Your task to perform on an android device: Open Google Chrome and click the shortcut for Amazon.com Image 0: 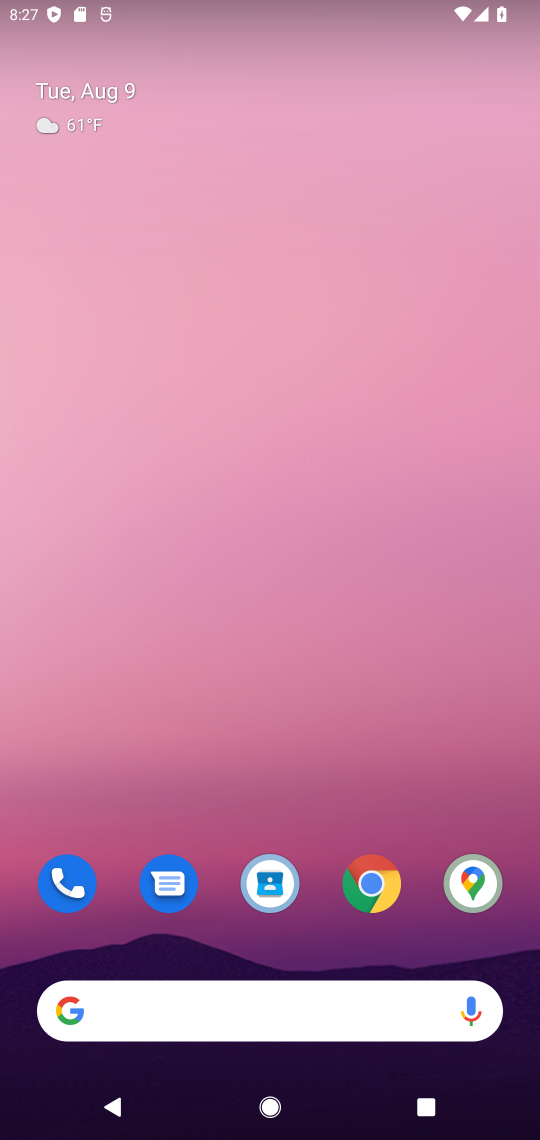
Step 0: click (272, 117)
Your task to perform on an android device: Open Google Chrome and click the shortcut for Amazon.com Image 1: 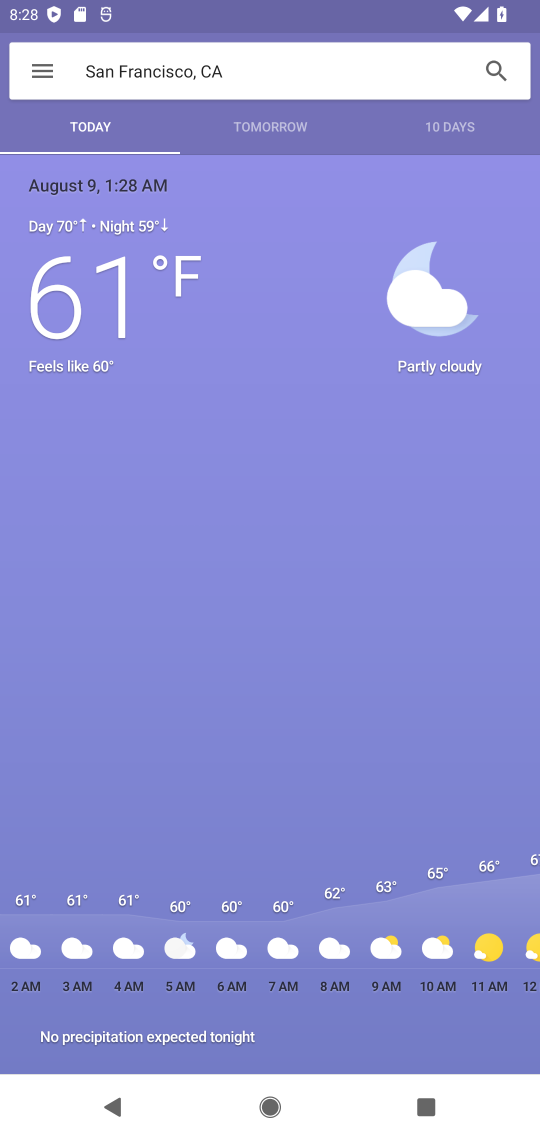
Step 1: press home button
Your task to perform on an android device: Open Google Chrome and click the shortcut for Amazon.com Image 2: 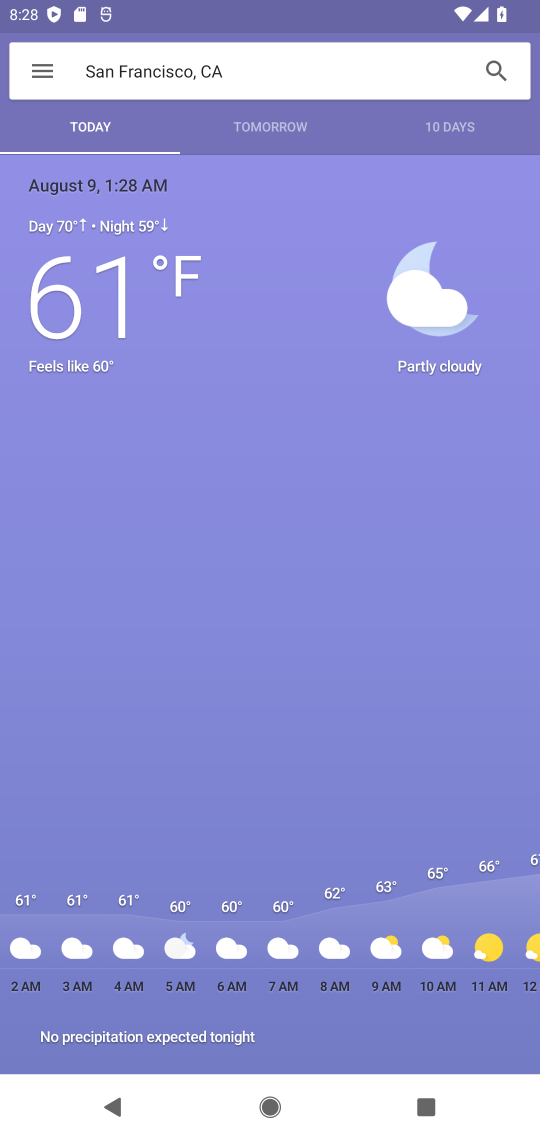
Step 2: press home button
Your task to perform on an android device: Open Google Chrome and click the shortcut for Amazon.com Image 3: 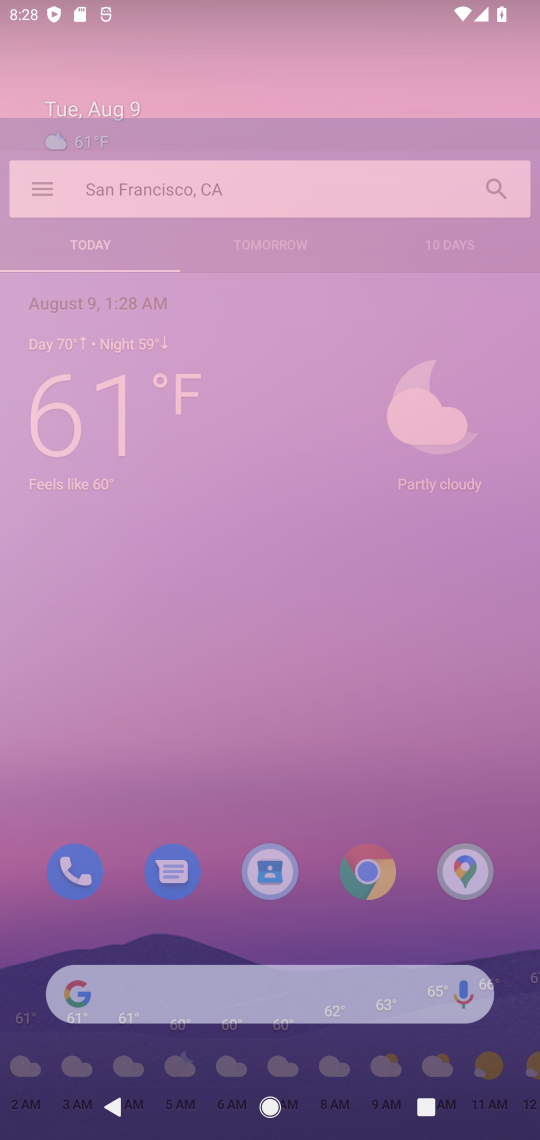
Step 3: press home button
Your task to perform on an android device: Open Google Chrome and click the shortcut for Amazon.com Image 4: 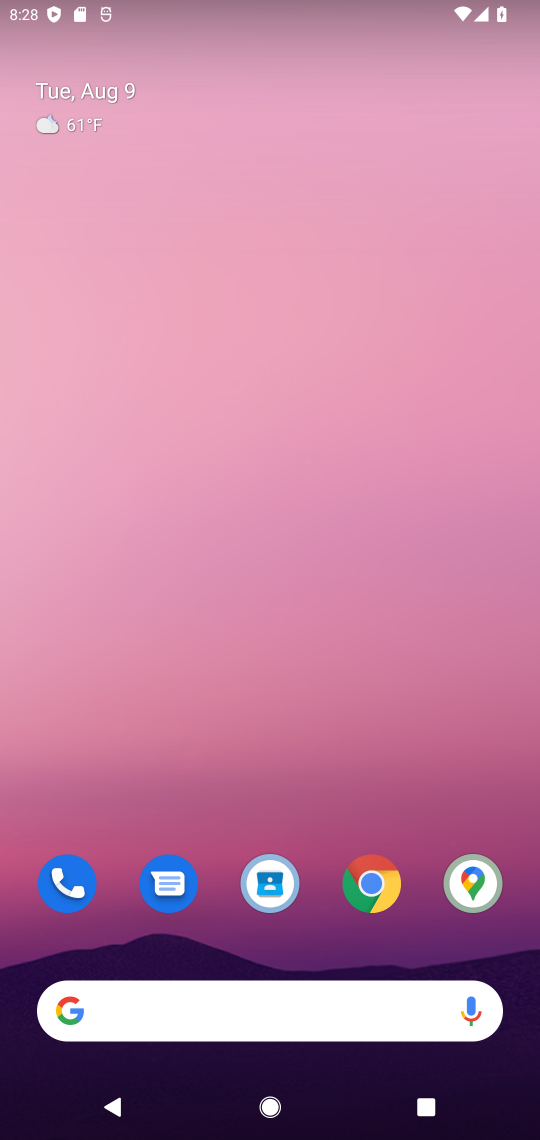
Step 4: drag from (223, 649) to (226, 47)
Your task to perform on an android device: Open Google Chrome and click the shortcut for Amazon.com Image 5: 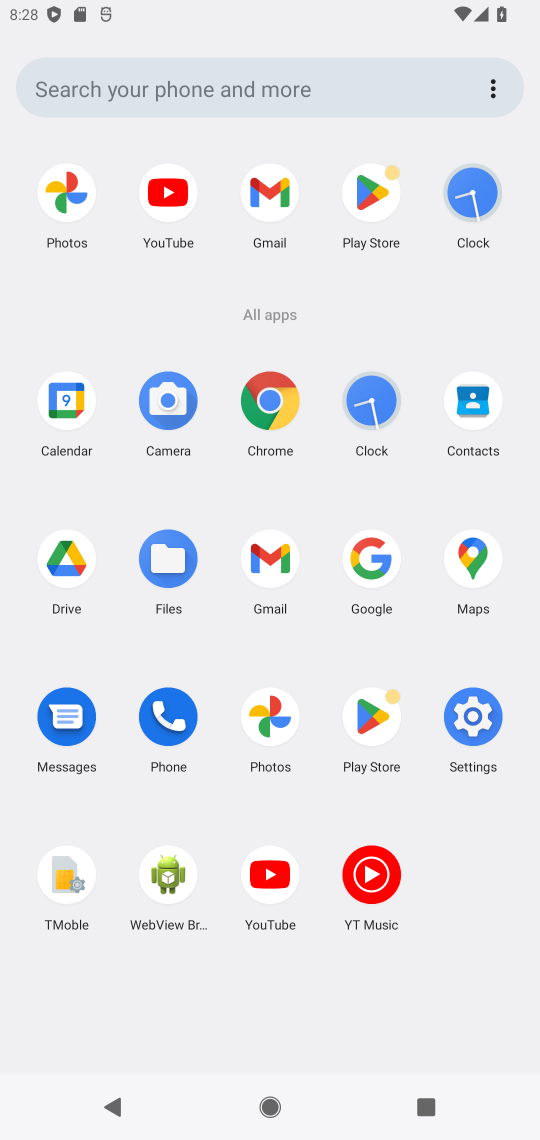
Step 5: click (269, 404)
Your task to perform on an android device: Open Google Chrome and click the shortcut for Amazon.com Image 6: 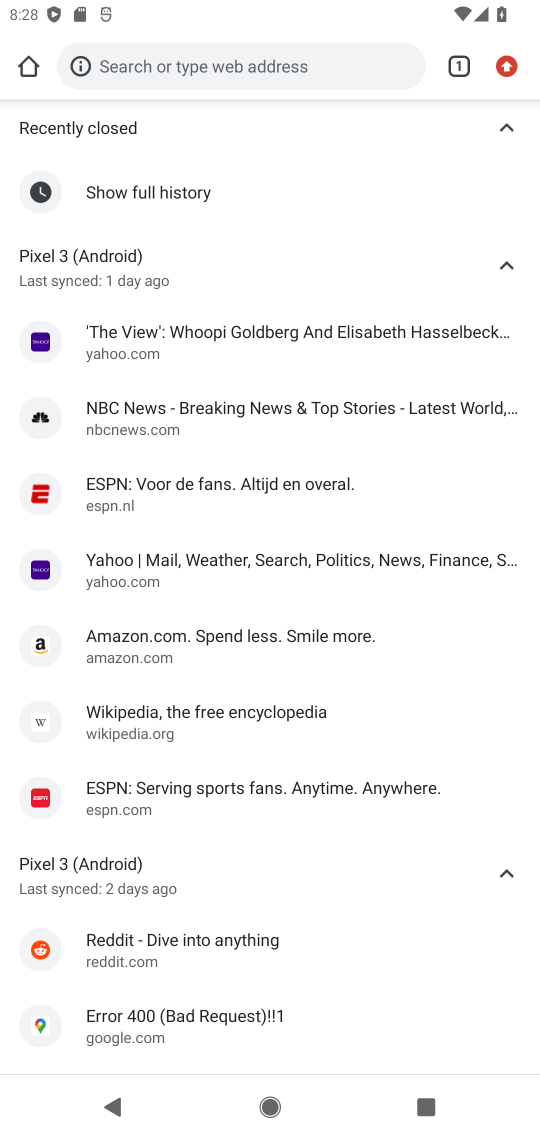
Step 6: drag from (528, 62) to (357, 183)
Your task to perform on an android device: Open Google Chrome and click the shortcut for Amazon.com Image 7: 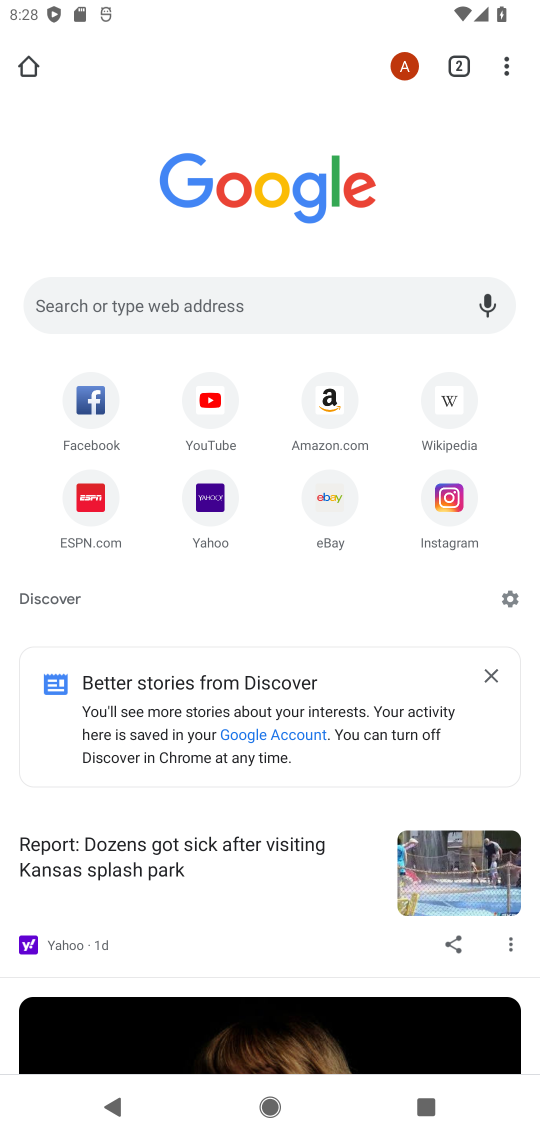
Step 7: click (324, 421)
Your task to perform on an android device: Open Google Chrome and click the shortcut for Amazon.com Image 8: 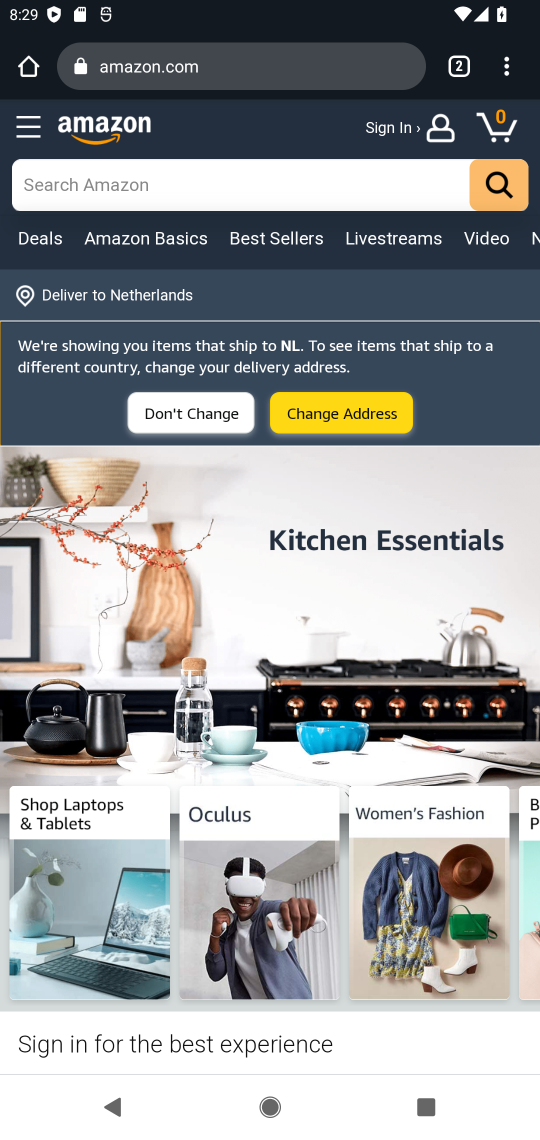
Step 8: task complete